Your task to perform on an android device: Search for vegetarian restaurants on Maps Image 0: 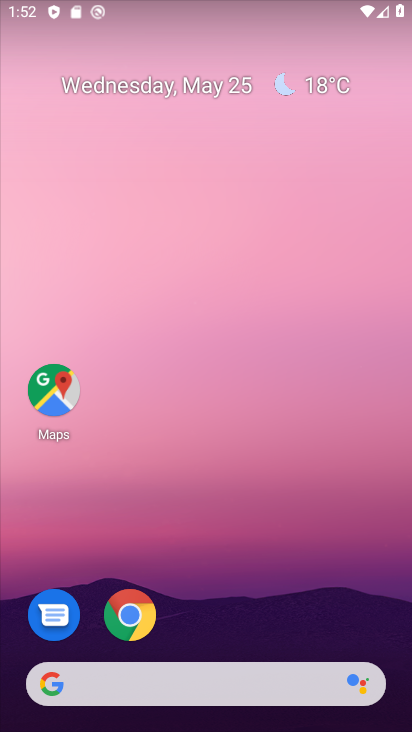
Step 0: click (58, 393)
Your task to perform on an android device: Search for vegetarian restaurants on Maps Image 1: 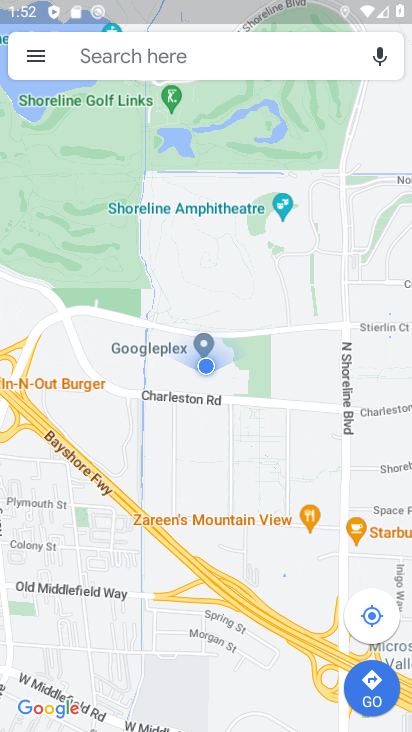
Step 1: click (232, 53)
Your task to perform on an android device: Search for vegetarian restaurants on Maps Image 2: 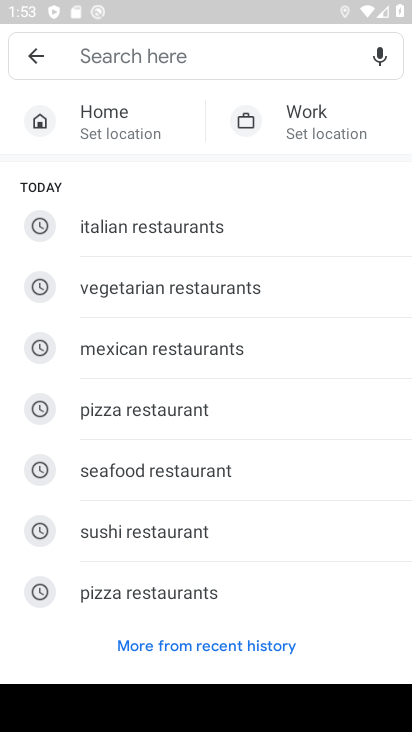
Step 2: click (197, 293)
Your task to perform on an android device: Search for vegetarian restaurants on Maps Image 3: 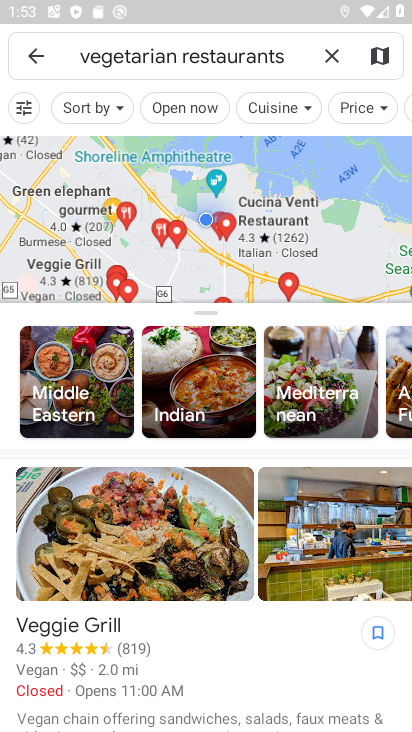
Step 3: task complete